Your task to perform on an android device: Open Yahoo.com Image 0: 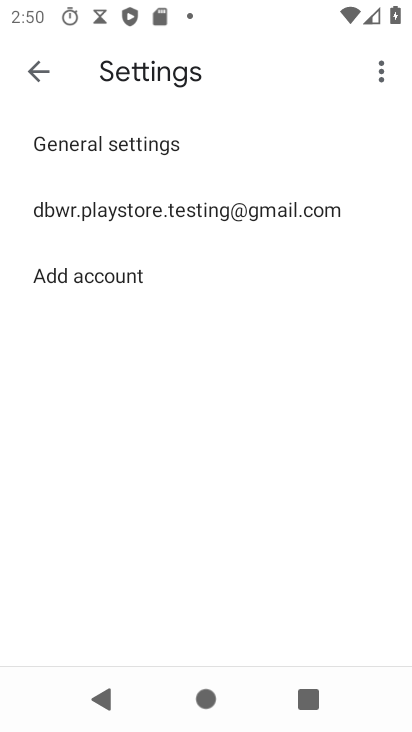
Step 0: press home button
Your task to perform on an android device: Open Yahoo.com Image 1: 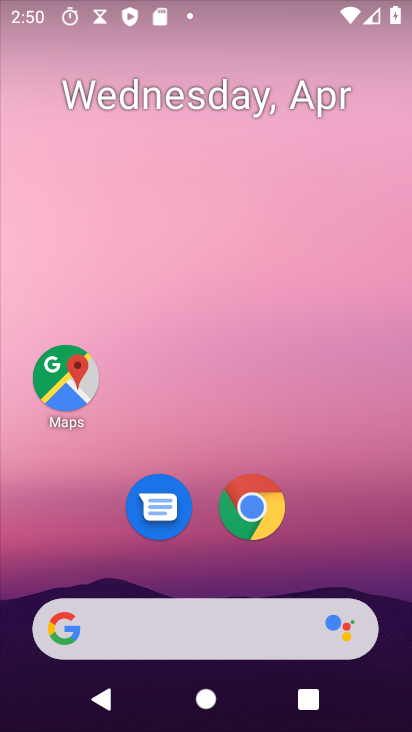
Step 1: drag from (310, 465) to (36, 94)
Your task to perform on an android device: Open Yahoo.com Image 2: 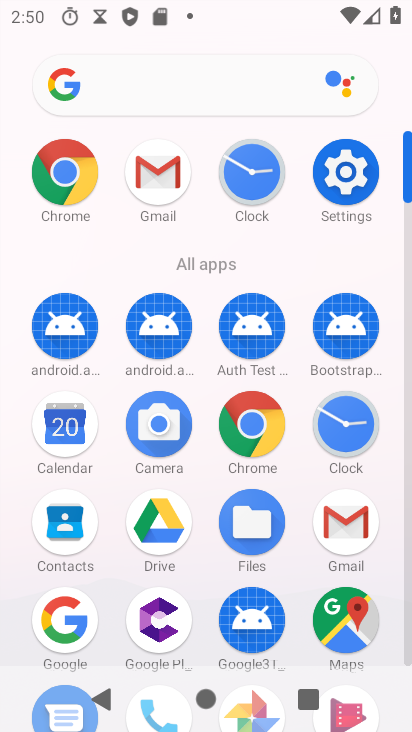
Step 2: click (257, 427)
Your task to perform on an android device: Open Yahoo.com Image 3: 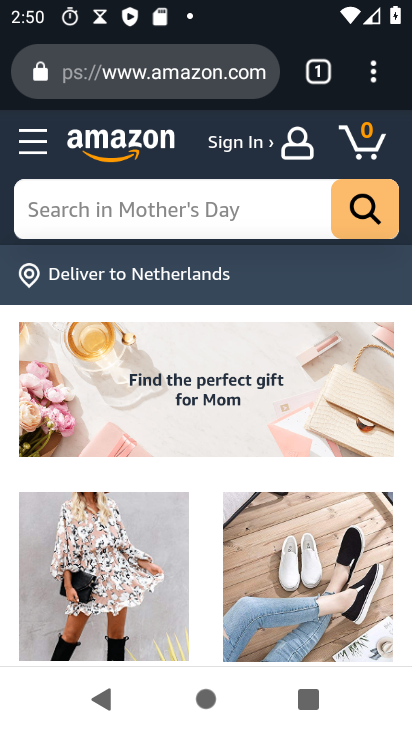
Step 3: click (311, 75)
Your task to perform on an android device: Open Yahoo.com Image 4: 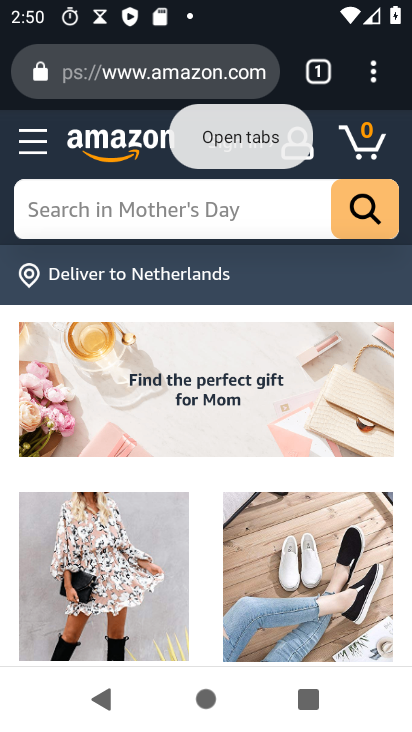
Step 4: click (329, 74)
Your task to perform on an android device: Open Yahoo.com Image 5: 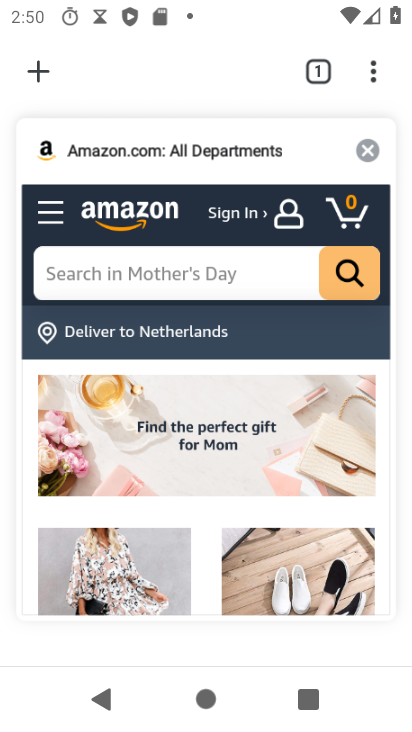
Step 5: click (33, 74)
Your task to perform on an android device: Open Yahoo.com Image 6: 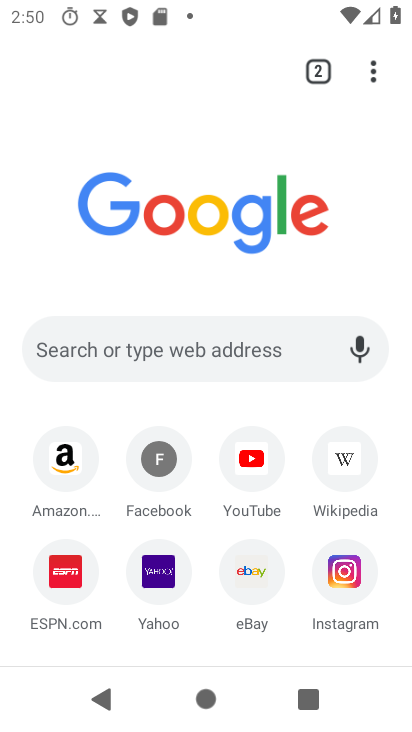
Step 6: click (169, 583)
Your task to perform on an android device: Open Yahoo.com Image 7: 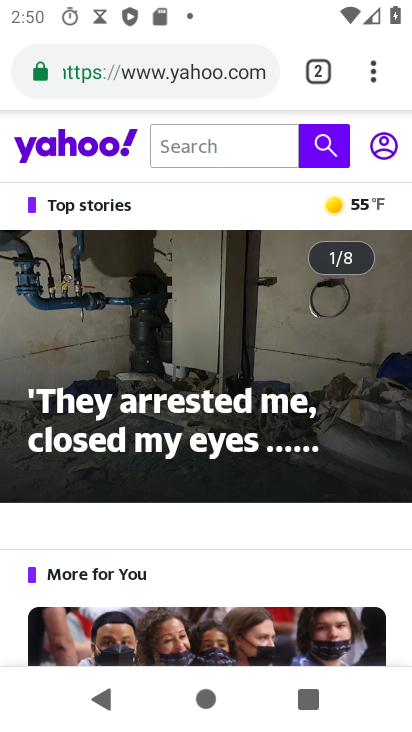
Step 7: task complete